Your task to perform on an android device: find snoozed emails in the gmail app Image 0: 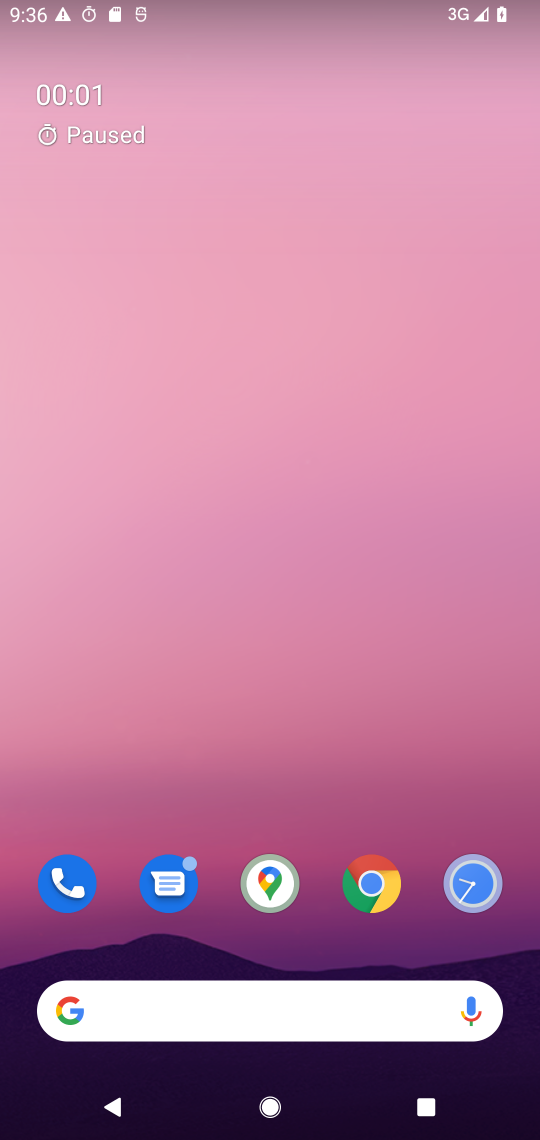
Step 0: drag from (37, 1087) to (238, 199)
Your task to perform on an android device: find snoozed emails in the gmail app Image 1: 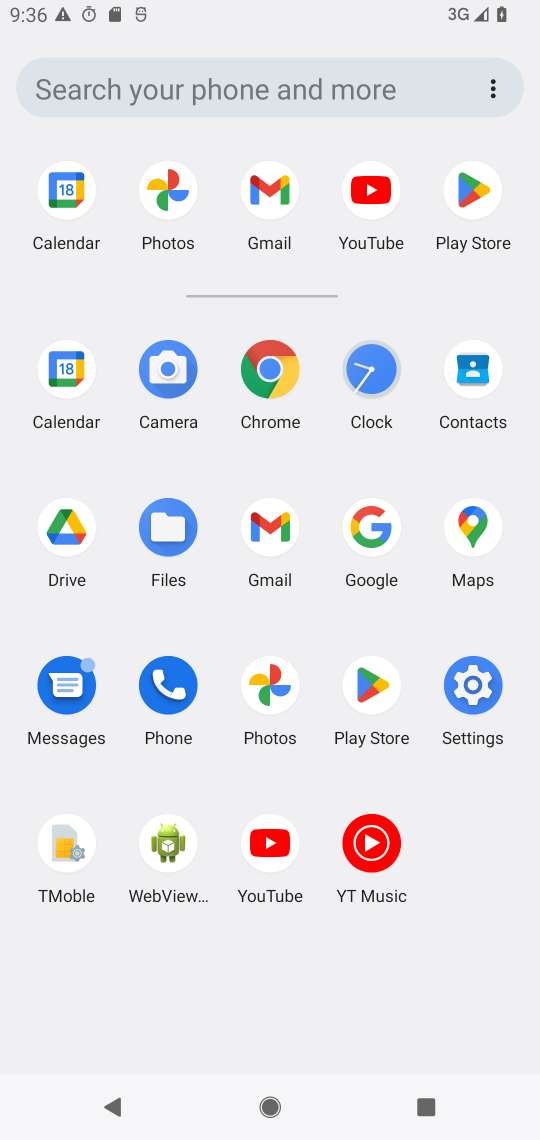
Step 1: click (281, 537)
Your task to perform on an android device: find snoozed emails in the gmail app Image 2: 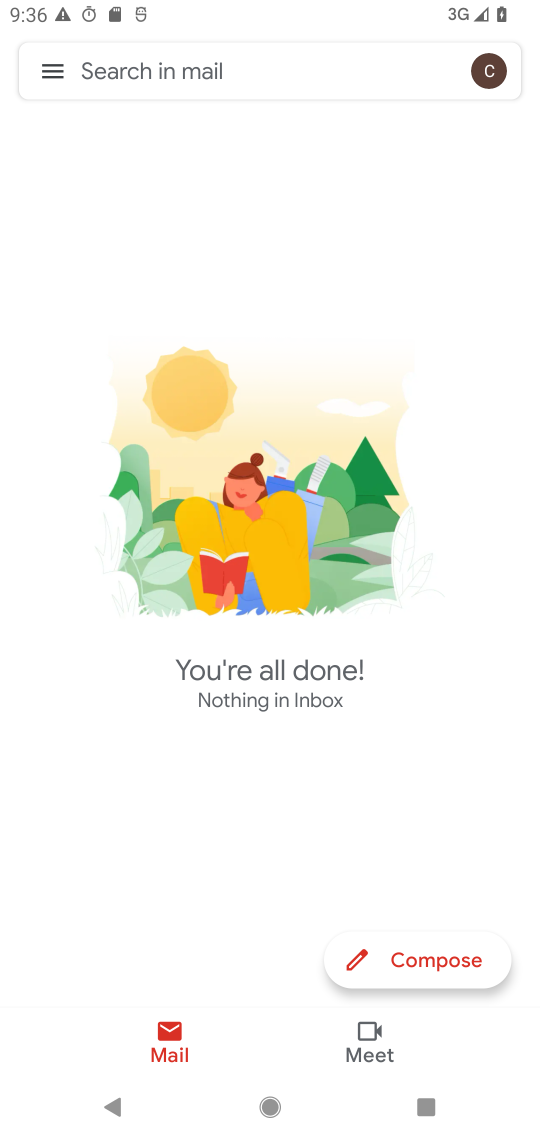
Step 2: click (53, 69)
Your task to perform on an android device: find snoozed emails in the gmail app Image 3: 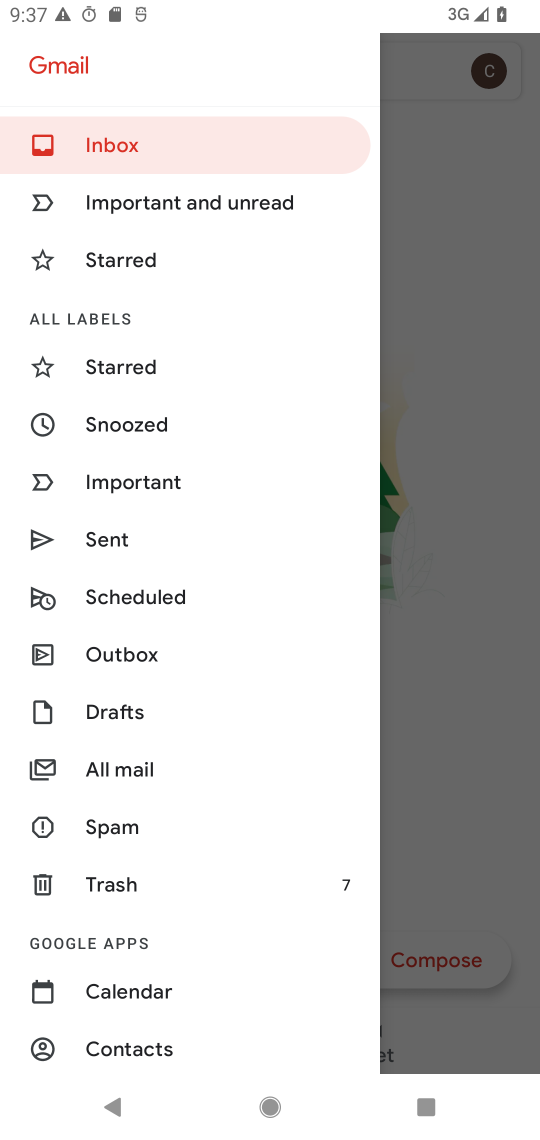
Step 3: click (108, 404)
Your task to perform on an android device: find snoozed emails in the gmail app Image 4: 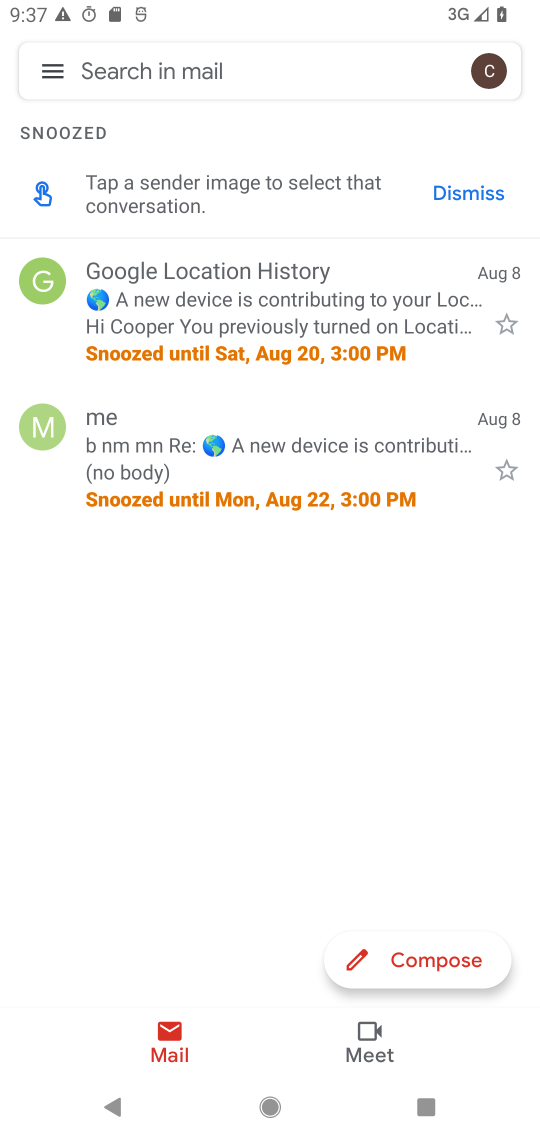
Step 4: task complete